Your task to perform on an android device: Show the shopping cart on bestbuy.com. Image 0: 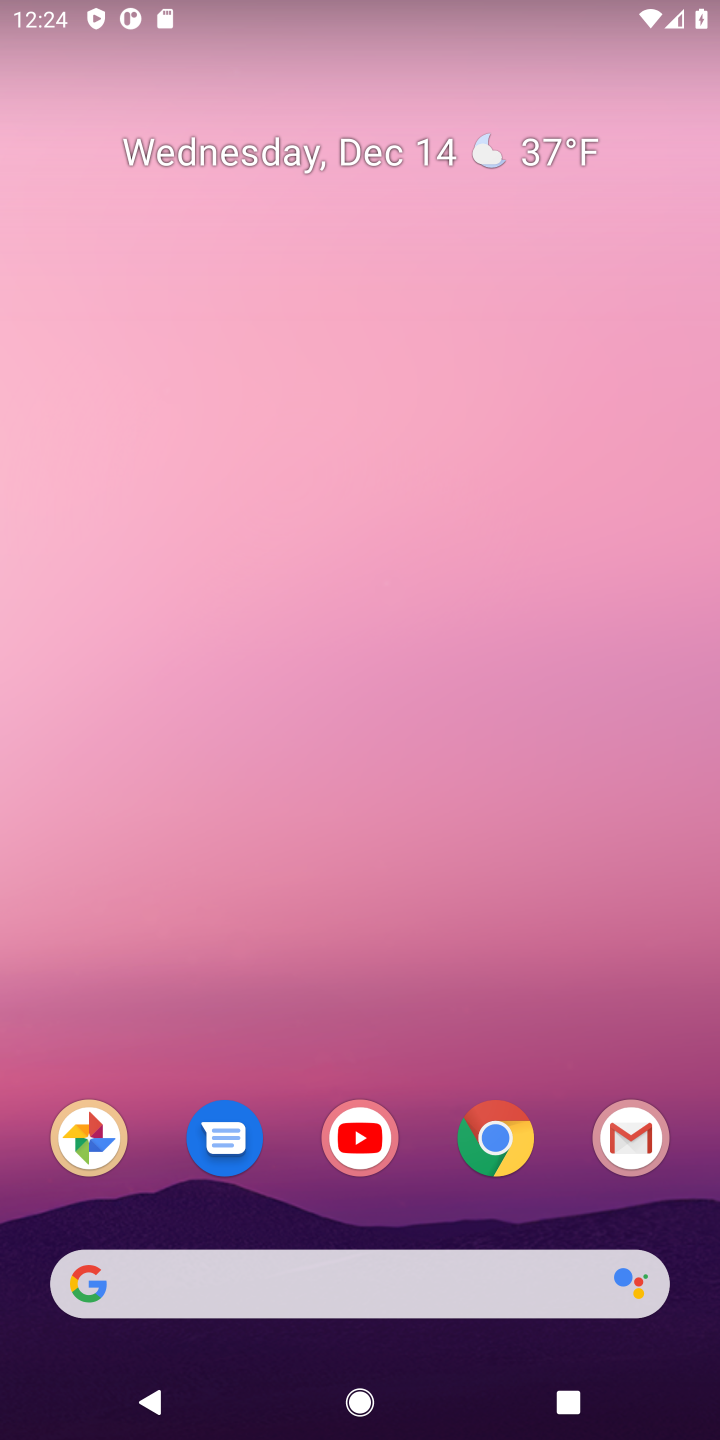
Step 0: click (494, 1126)
Your task to perform on an android device: Show the shopping cart on bestbuy.com. Image 1: 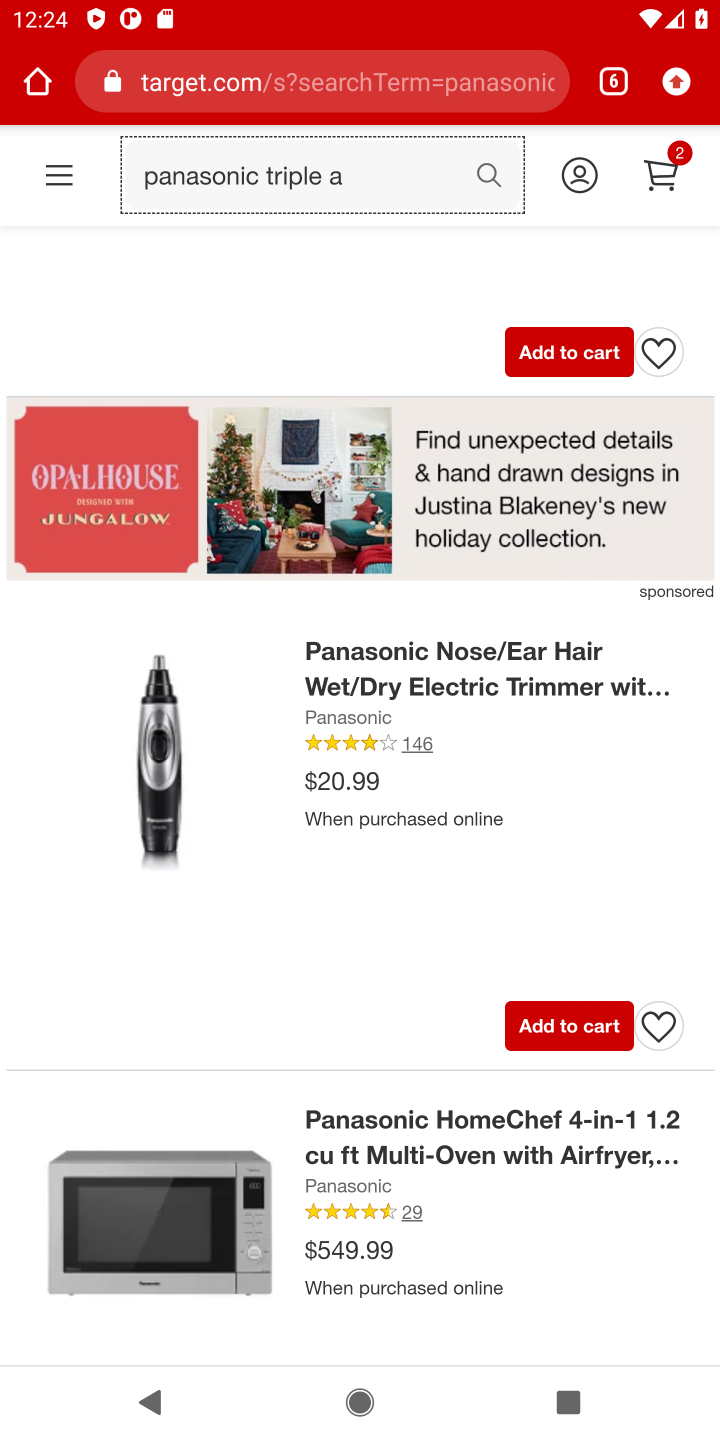
Step 1: click (618, 88)
Your task to perform on an android device: Show the shopping cart on bestbuy.com. Image 2: 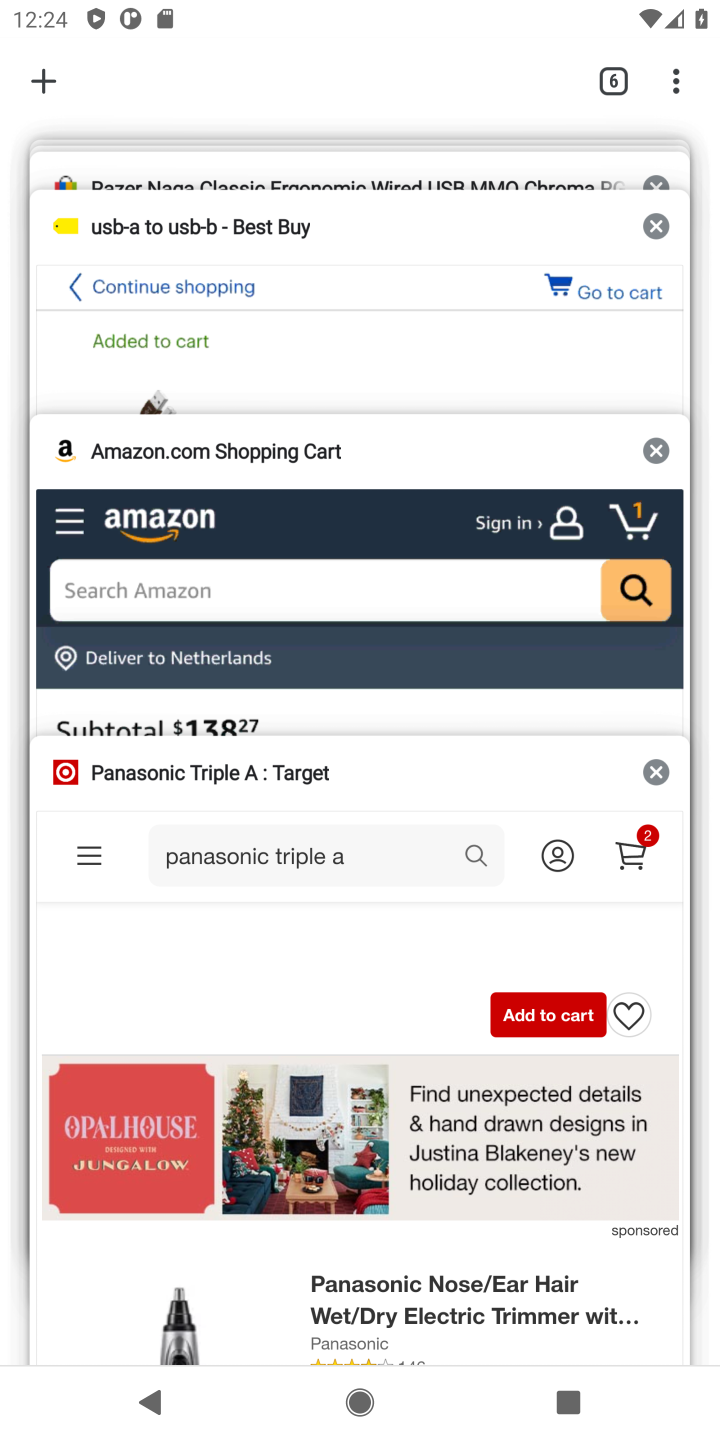
Step 2: click (372, 278)
Your task to perform on an android device: Show the shopping cart on bestbuy.com. Image 3: 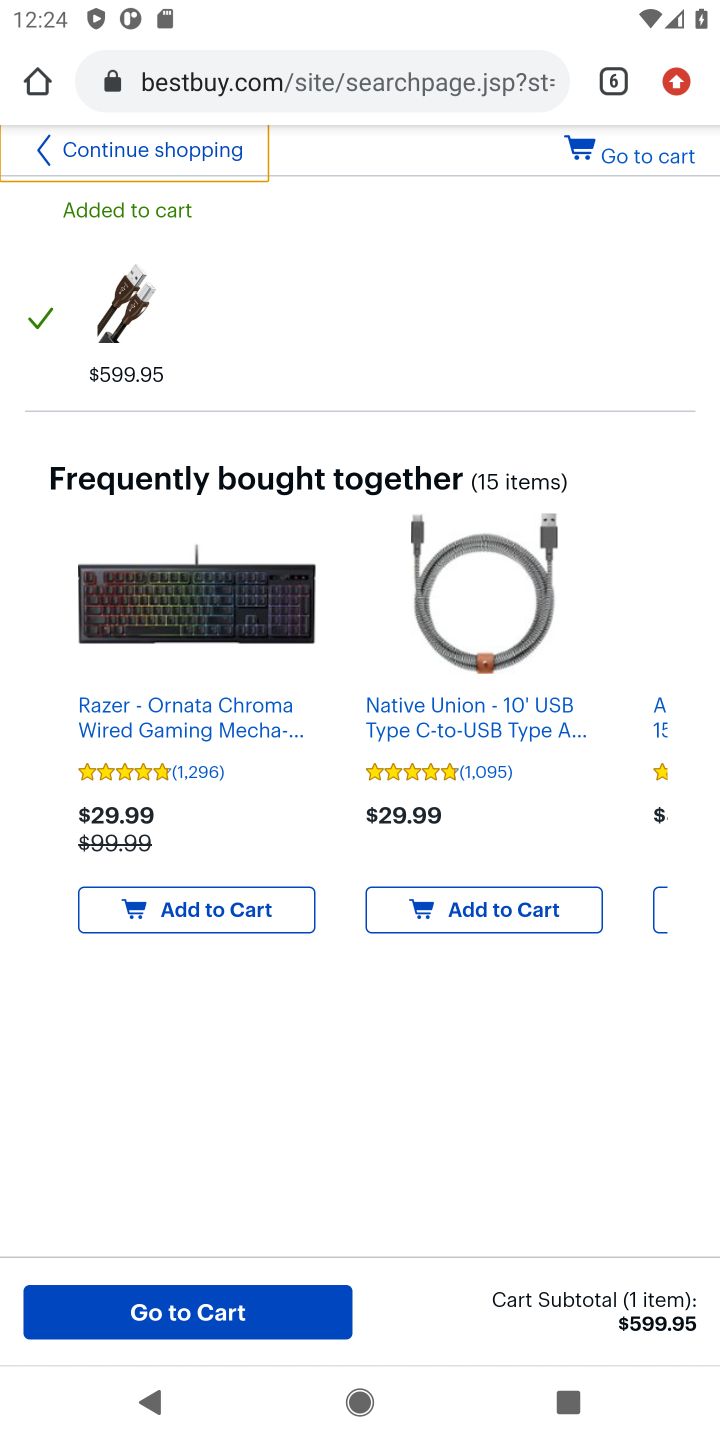
Step 3: click (640, 154)
Your task to perform on an android device: Show the shopping cart on bestbuy.com. Image 4: 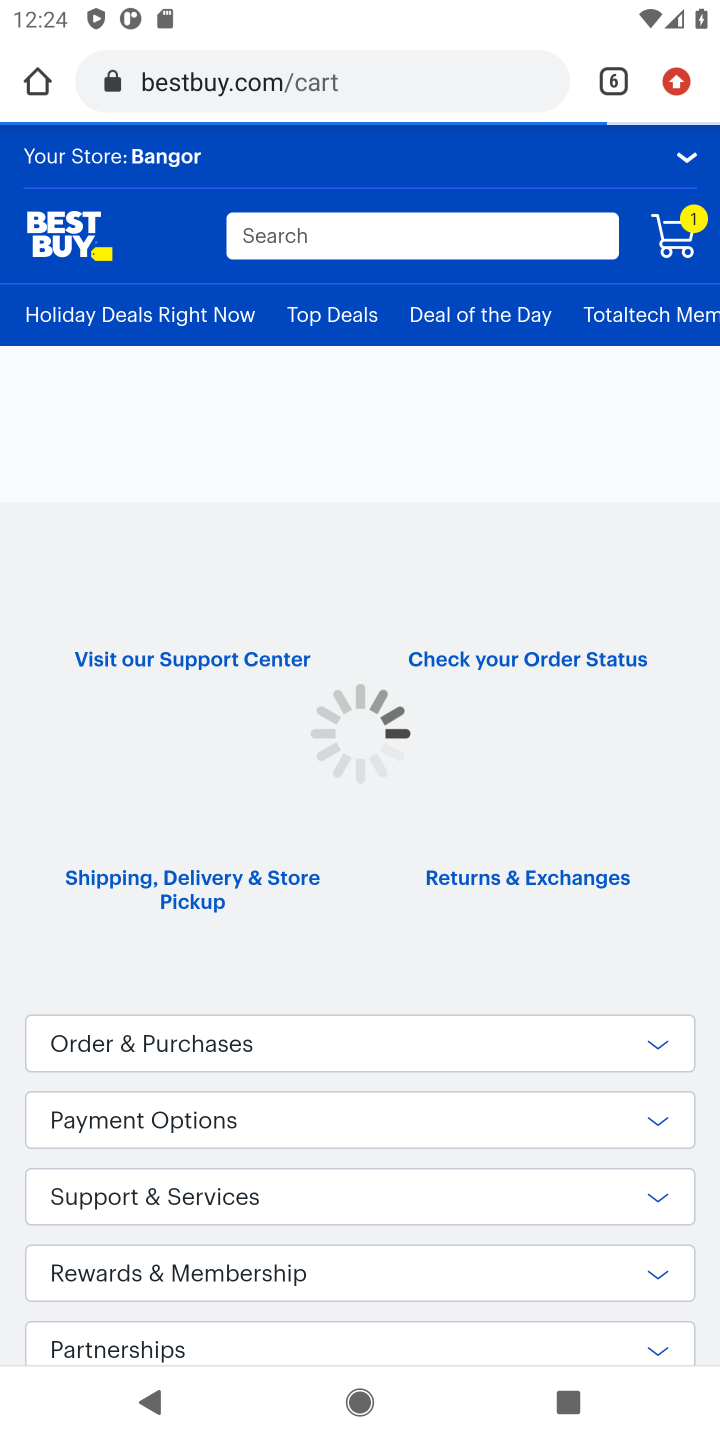
Step 4: click (680, 243)
Your task to perform on an android device: Show the shopping cart on bestbuy.com. Image 5: 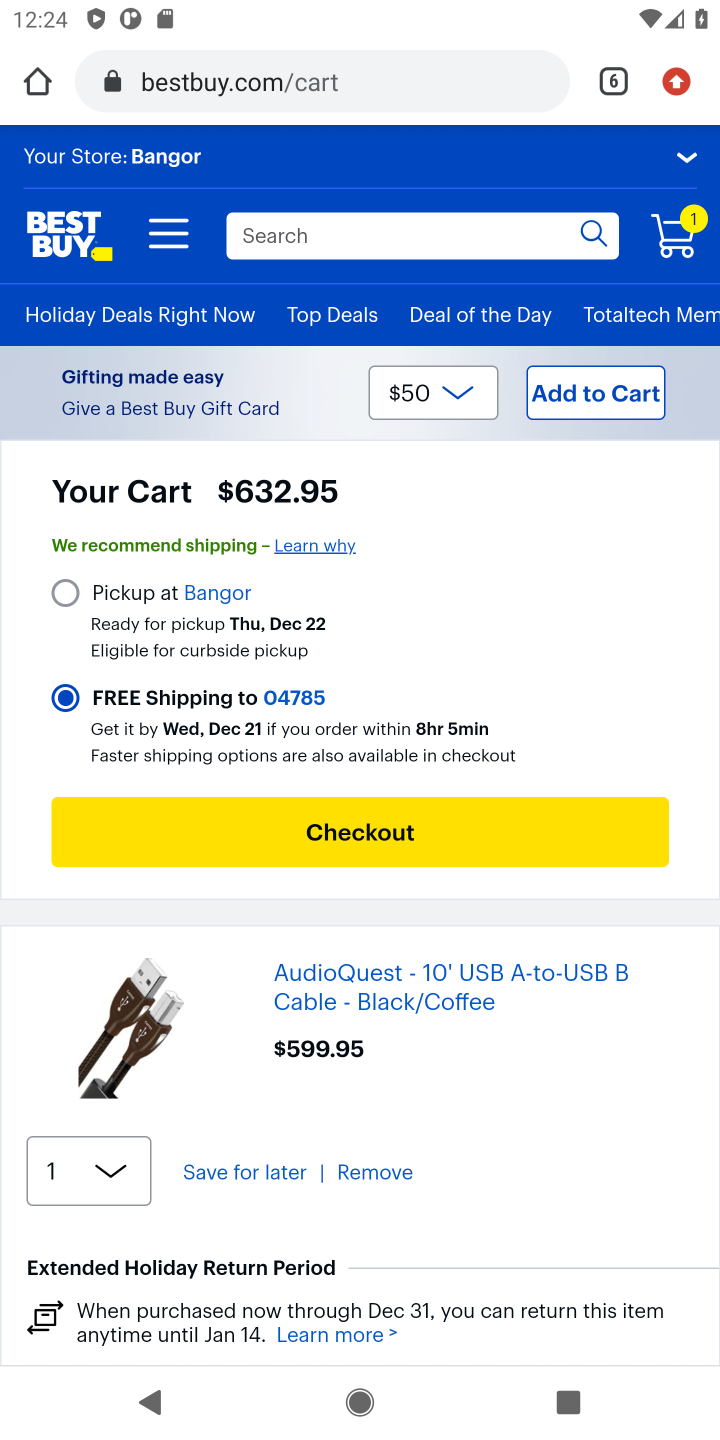
Step 5: task complete